Your task to perform on an android device: Find coffee shops on Maps Image 0: 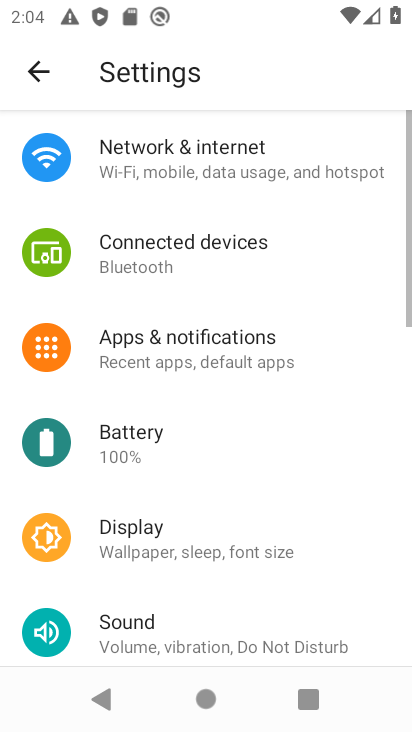
Step 0: press home button
Your task to perform on an android device: Find coffee shops on Maps Image 1: 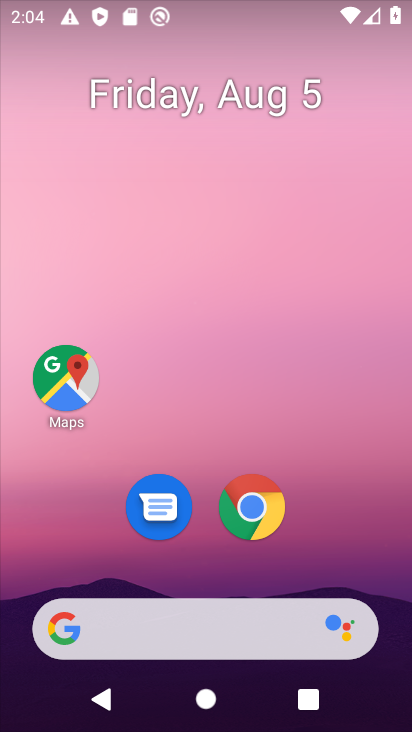
Step 1: click (55, 377)
Your task to perform on an android device: Find coffee shops on Maps Image 2: 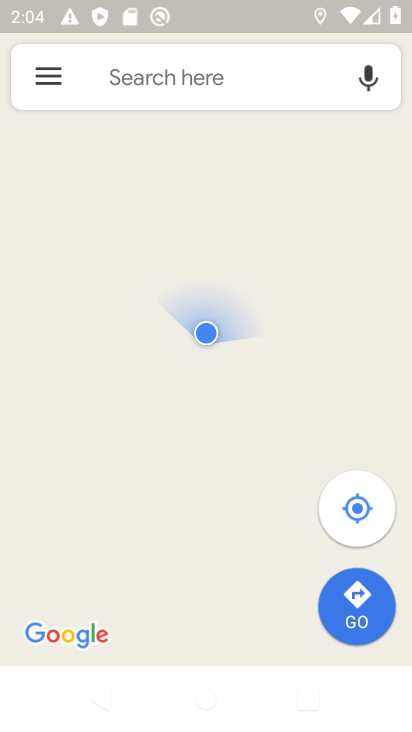
Step 2: click (187, 85)
Your task to perform on an android device: Find coffee shops on Maps Image 3: 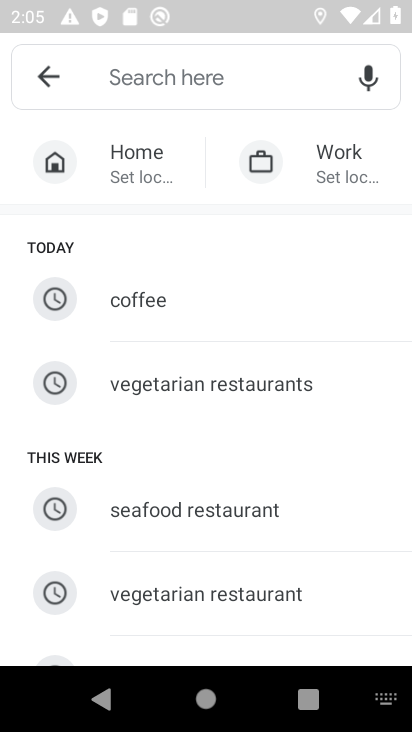
Step 3: type "coffee shops"
Your task to perform on an android device: Find coffee shops on Maps Image 4: 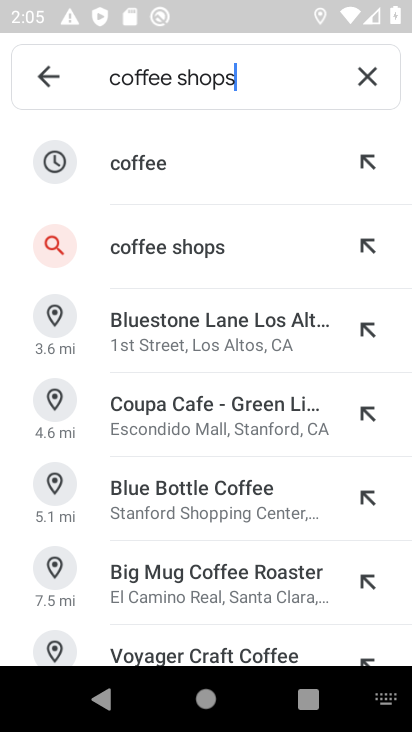
Step 4: click (181, 240)
Your task to perform on an android device: Find coffee shops on Maps Image 5: 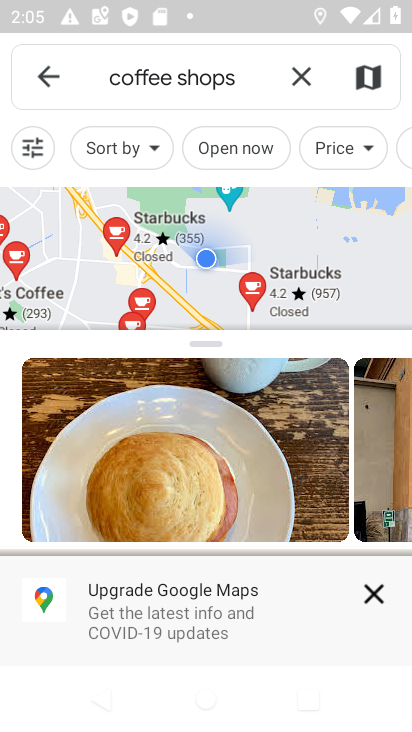
Step 5: click (382, 600)
Your task to perform on an android device: Find coffee shops on Maps Image 6: 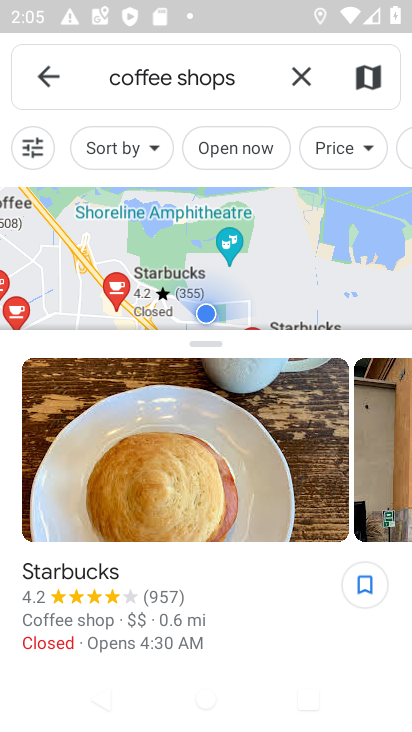
Step 6: task complete